Your task to perform on an android device: show emergency info Image 0: 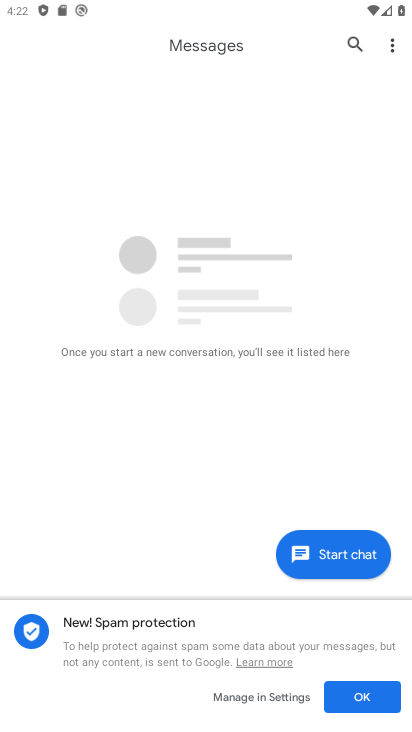
Step 0: drag from (223, 665) to (301, 191)
Your task to perform on an android device: show emergency info Image 1: 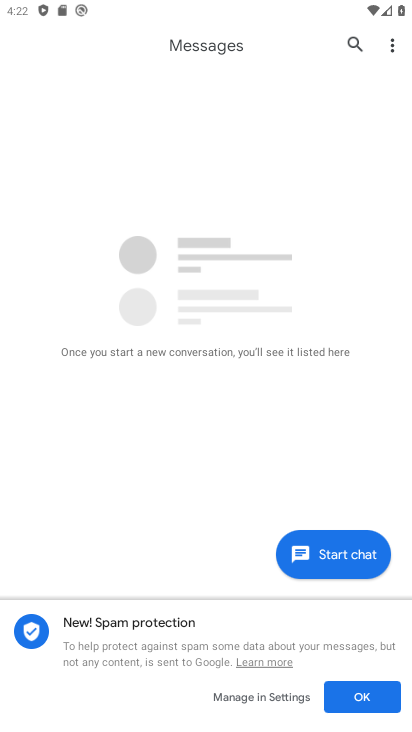
Step 1: press home button
Your task to perform on an android device: show emergency info Image 2: 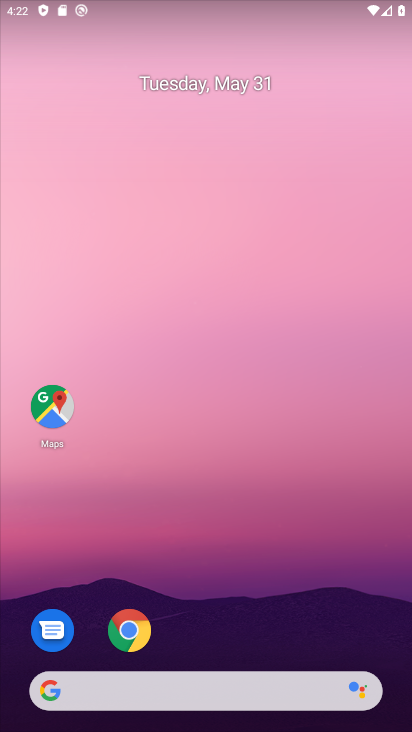
Step 2: drag from (168, 615) to (231, 280)
Your task to perform on an android device: show emergency info Image 3: 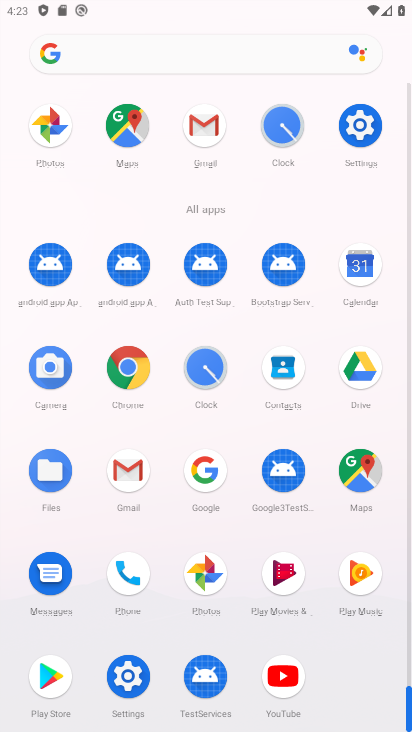
Step 3: click (128, 677)
Your task to perform on an android device: show emergency info Image 4: 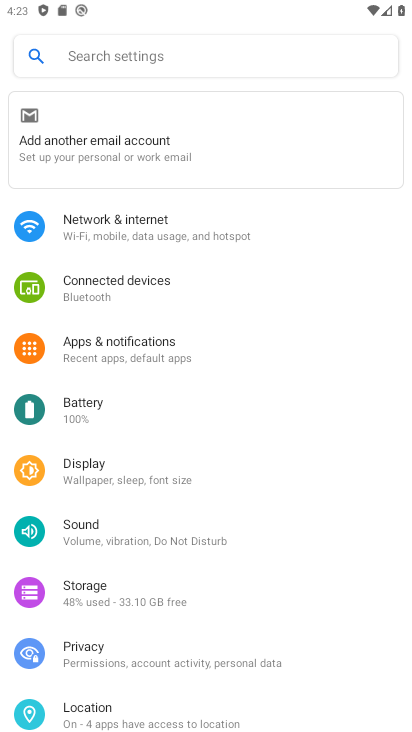
Step 4: drag from (177, 681) to (289, 141)
Your task to perform on an android device: show emergency info Image 5: 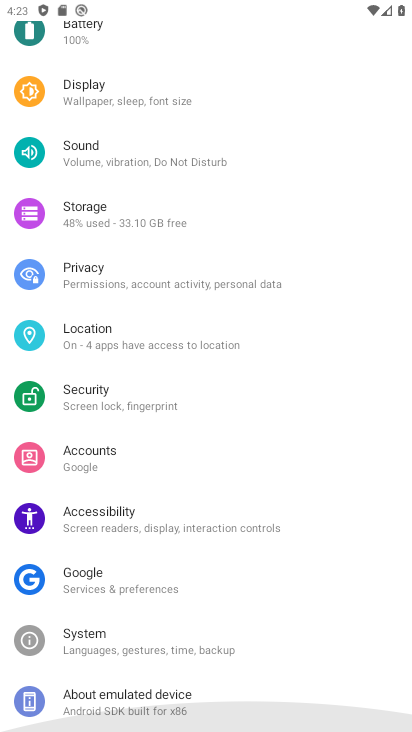
Step 5: drag from (202, 631) to (257, 352)
Your task to perform on an android device: show emergency info Image 6: 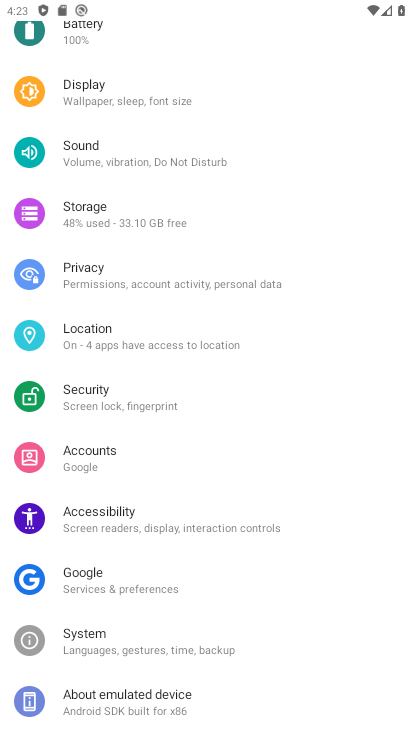
Step 6: click (166, 715)
Your task to perform on an android device: show emergency info Image 7: 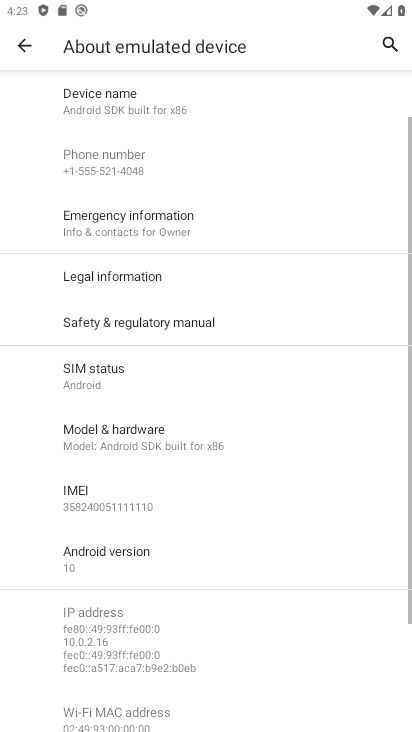
Step 7: click (213, 211)
Your task to perform on an android device: show emergency info Image 8: 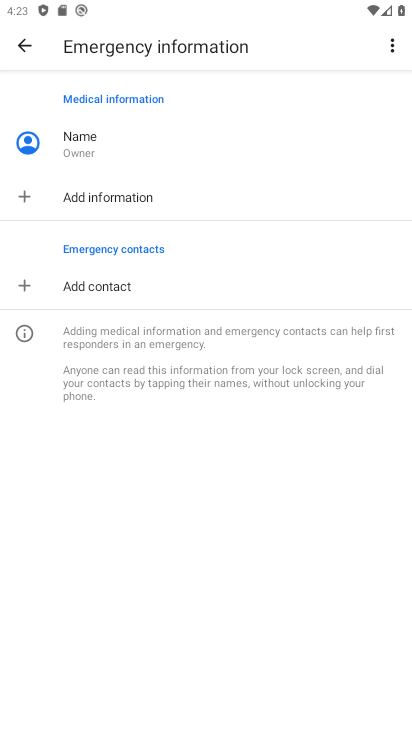
Step 8: task complete